Your task to perform on an android device: find which apps use the phone's location Image 0: 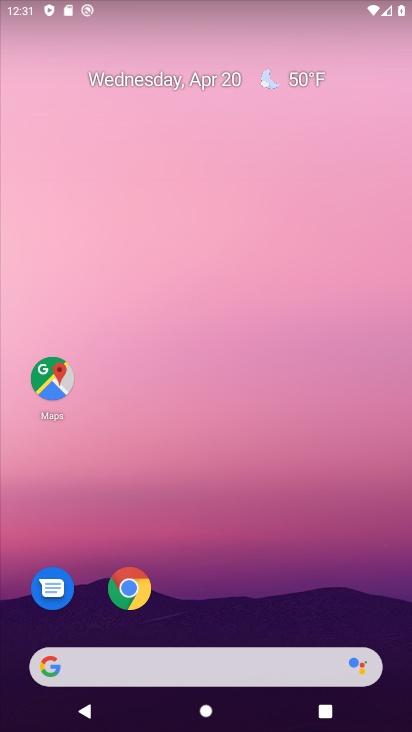
Step 0: drag from (198, 633) to (240, 73)
Your task to perform on an android device: find which apps use the phone's location Image 1: 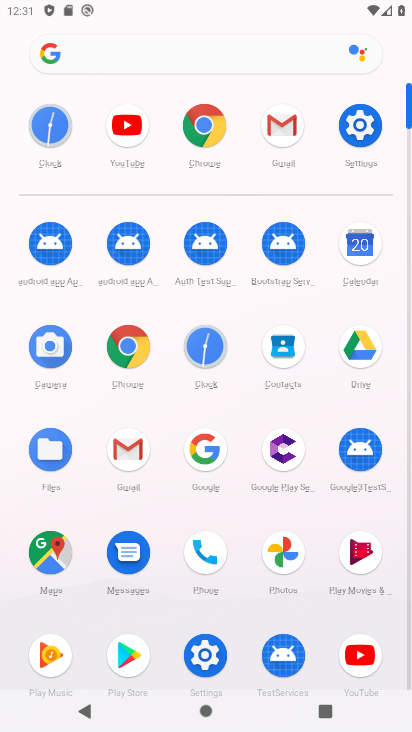
Step 1: click (355, 123)
Your task to perform on an android device: find which apps use the phone's location Image 2: 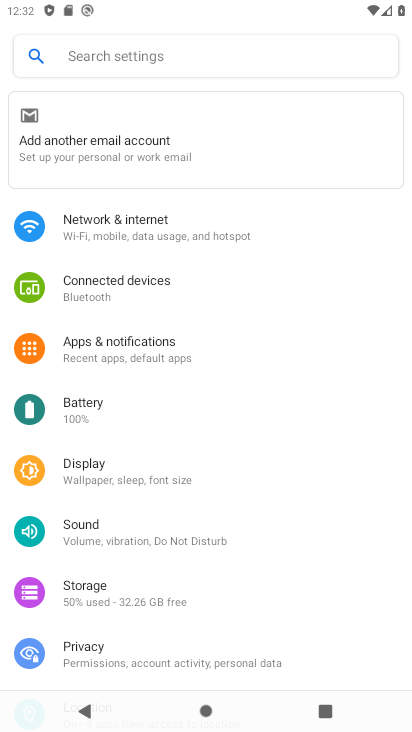
Step 2: drag from (126, 626) to (145, 143)
Your task to perform on an android device: find which apps use the phone's location Image 3: 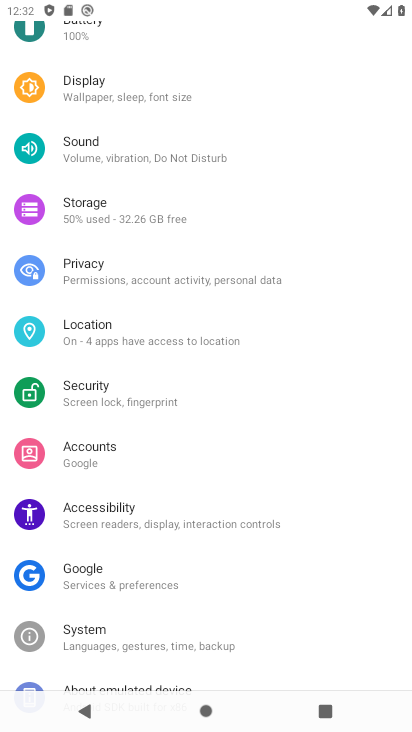
Step 3: click (122, 331)
Your task to perform on an android device: find which apps use the phone's location Image 4: 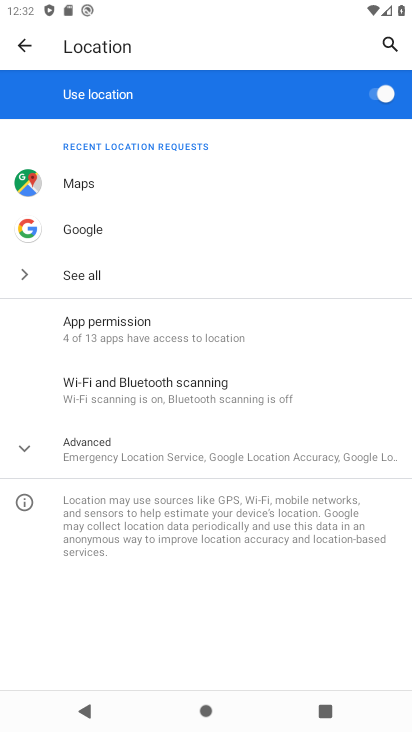
Step 4: click (98, 325)
Your task to perform on an android device: find which apps use the phone's location Image 5: 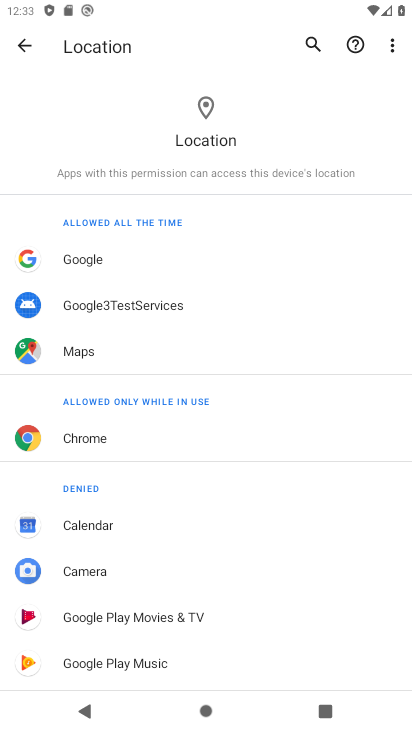
Step 5: task complete